Your task to perform on an android device: make emails show in primary in the gmail app Image 0: 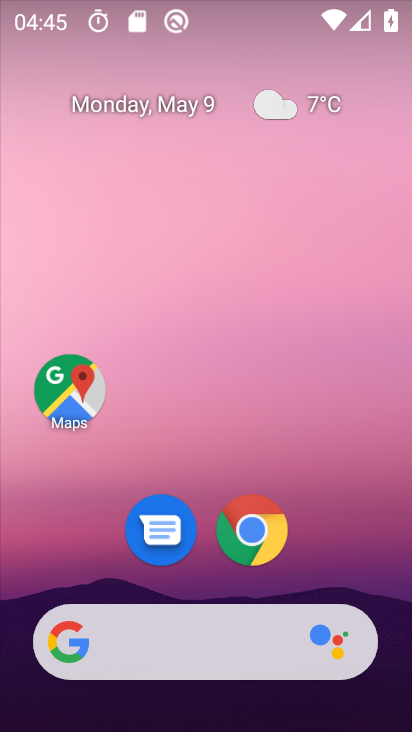
Step 0: drag from (183, 596) to (322, 6)
Your task to perform on an android device: make emails show in primary in the gmail app Image 1: 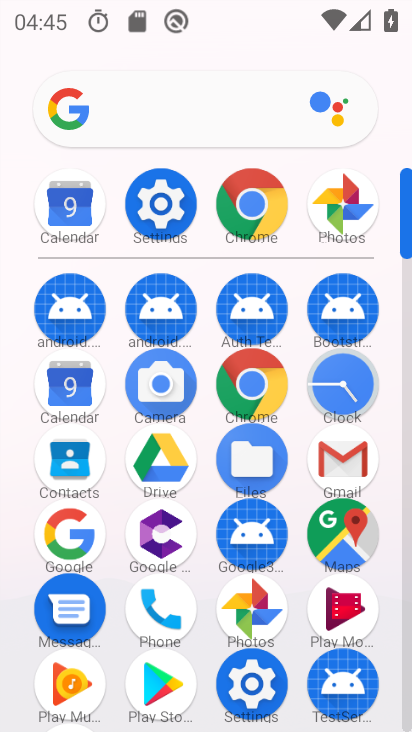
Step 1: click (342, 452)
Your task to perform on an android device: make emails show in primary in the gmail app Image 2: 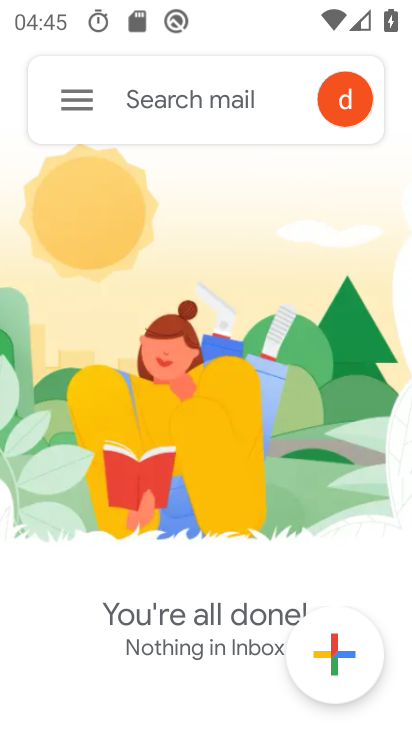
Step 2: click (69, 103)
Your task to perform on an android device: make emails show in primary in the gmail app Image 3: 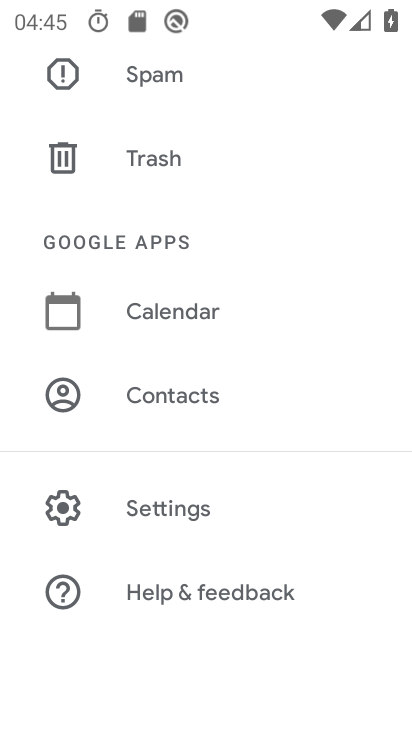
Step 3: click (170, 503)
Your task to perform on an android device: make emails show in primary in the gmail app Image 4: 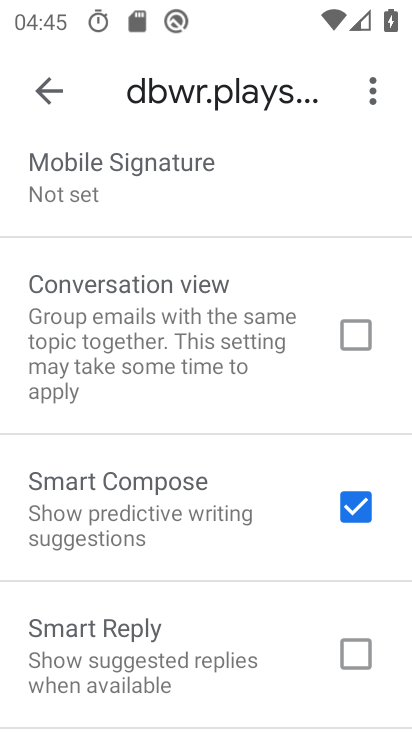
Step 4: drag from (213, 230) to (107, 728)
Your task to perform on an android device: make emails show in primary in the gmail app Image 5: 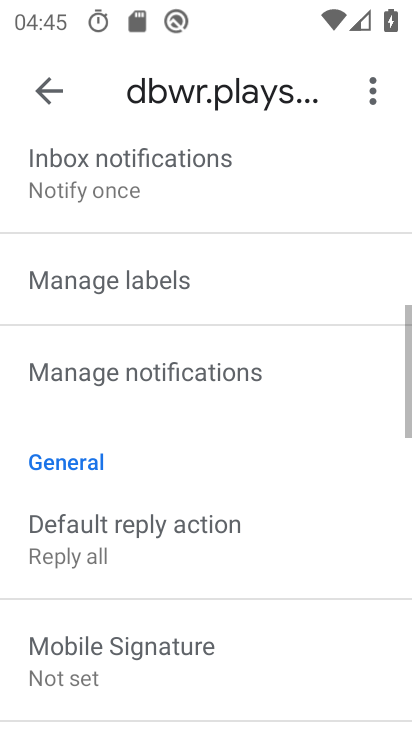
Step 5: drag from (187, 282) to (101, 724)
Your task to perform on an android device: make emails show in primary in the gmail app Image 6: 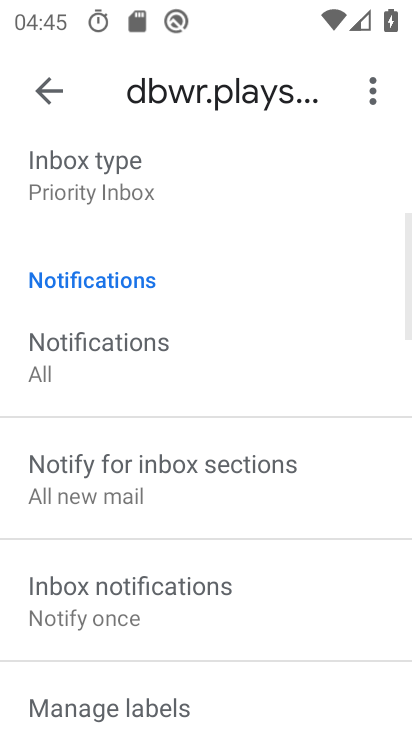
Step 6: drag from (147, 277) to (147, 622)
Your task to perform on an android device: make emails show in primary in the gmail app Image 7: 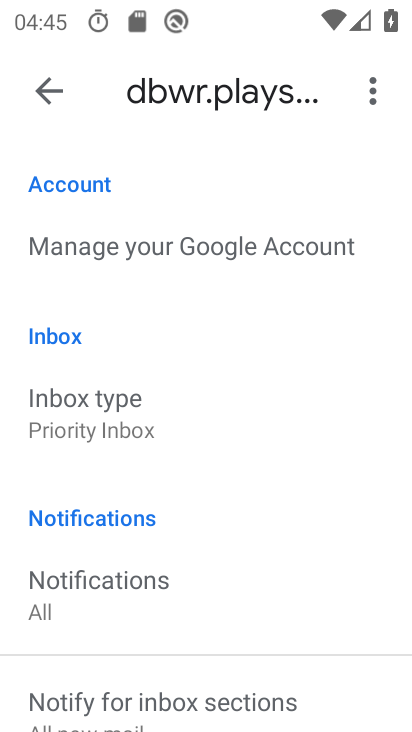
Step 7: click (103, 408)
Your task to perform on an android device: make emails show in primary in the gmail app Image 8: 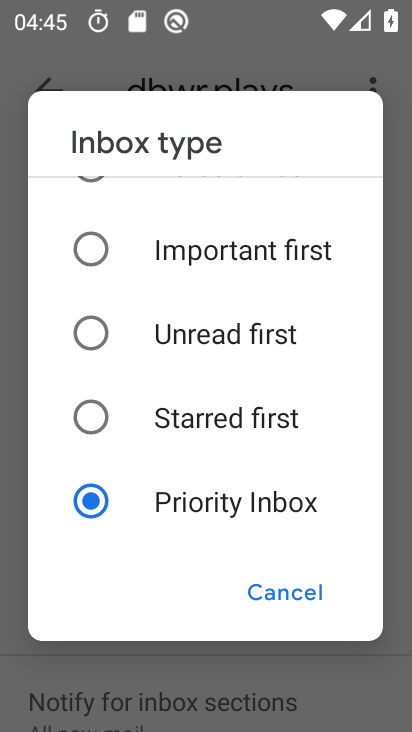
Step 8: click (303, 587)
Your task to perform on an android device: make emails show in primary in the gmail app Image 9: 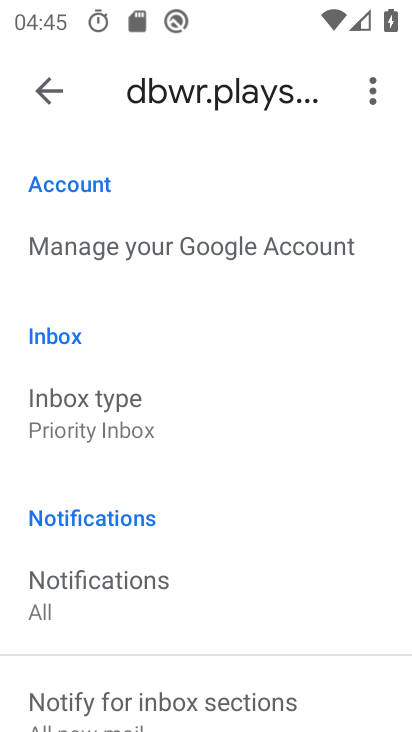
Step 9: task complete